Your task to perform on an android device: show emergency info Image 0: 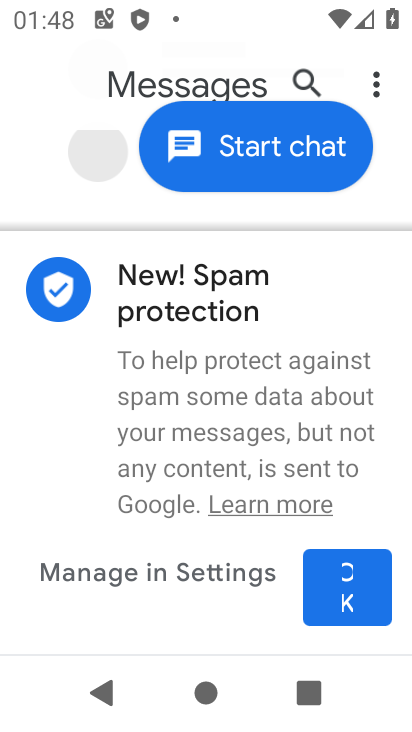
Step 0: press home button
Your task to perform on an android device: show emergency info Image 1: 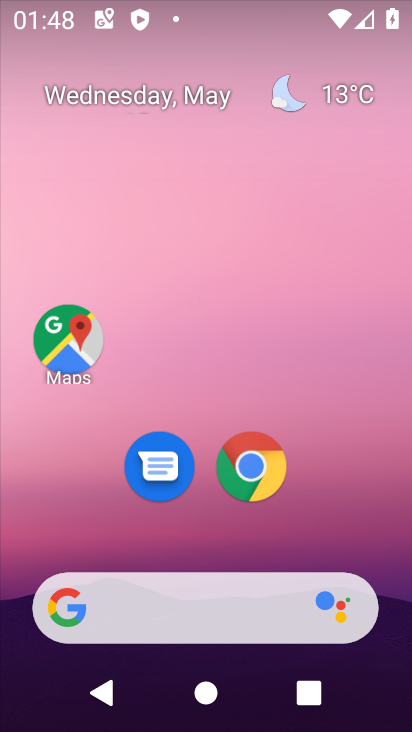
Step 1: drag from (338, 525) to (311, 100)
Your task to perform on an android device: show emergency info Image 2: 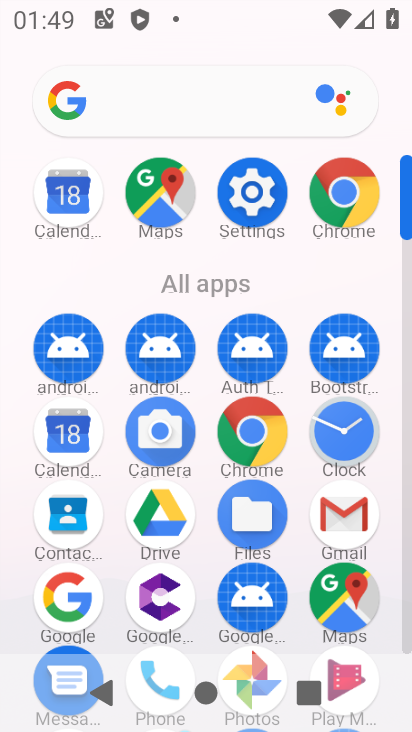
Step 2: click (258, 195)
Your task to perform on an android device: show emergency info Image 3: 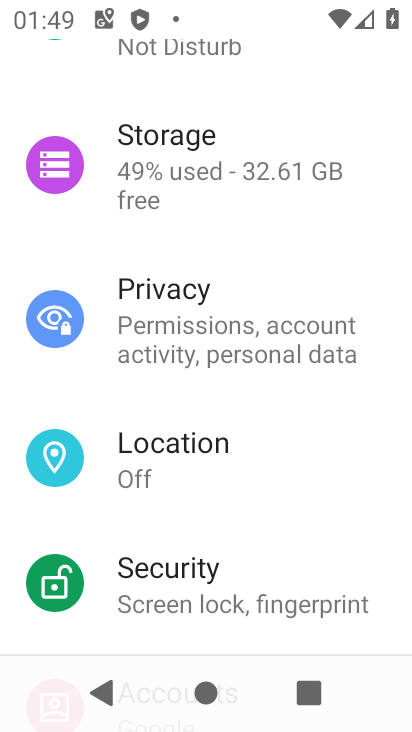
Step 3: drag from (207, 486) to (323, 13)
Your task to perform on an android device: show emergency info Image 4: 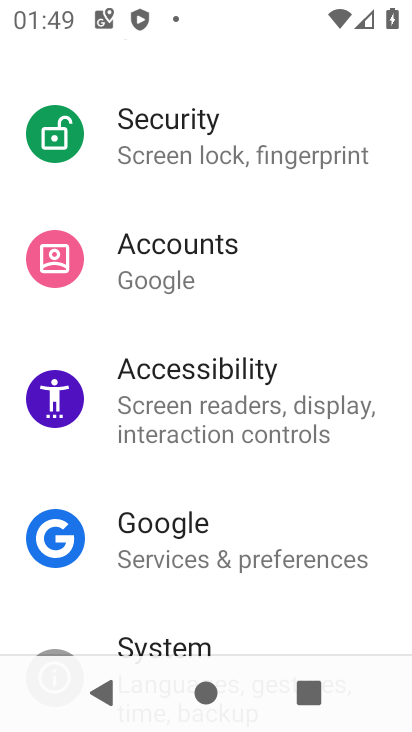
Step 4: drag from (264, 616) to (306, 79)
Your task to perform on an android device: show emergency info Image 5: 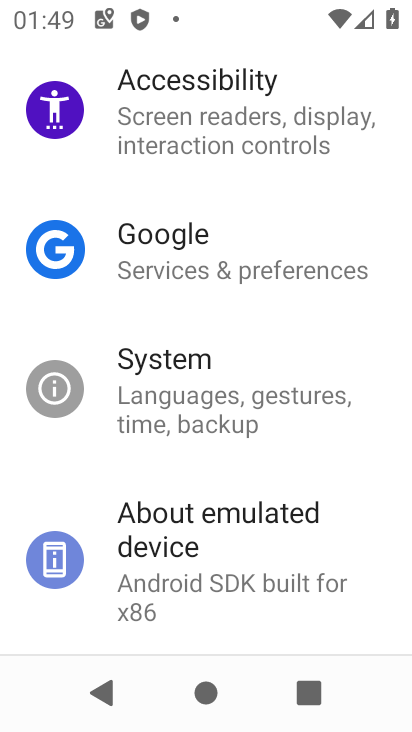
Step 5: click (251, 551)
Your task to perform on an android device: show emergency info Image 6: 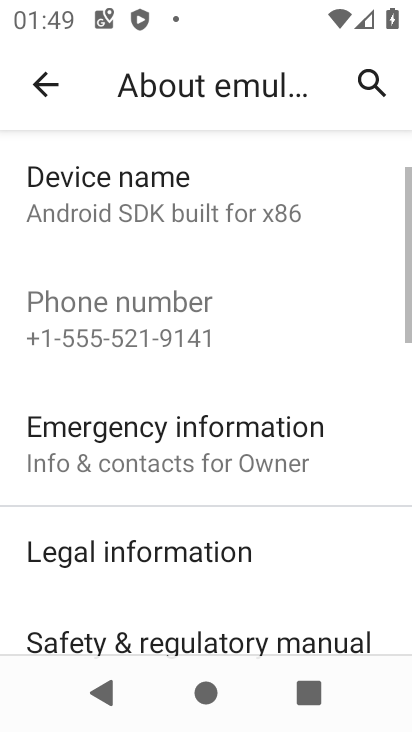
Step 6: drag from (251, 556) to (255, 457)
Your task to perform on an android device: show emergency info Image 7: 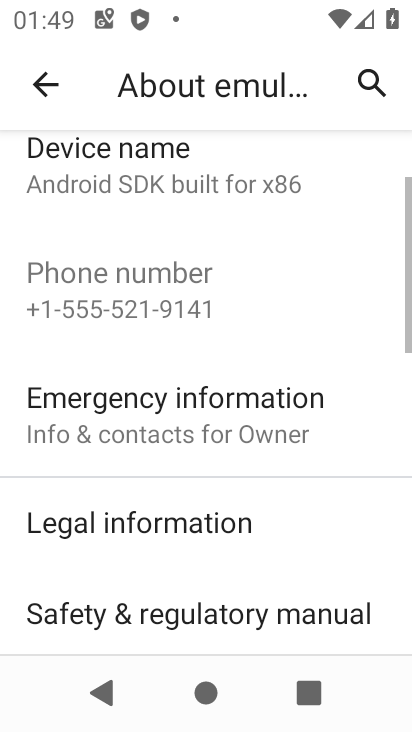
Step 7: click (248, 416)
Your task to perform on an android device: show emergency info Image 8: 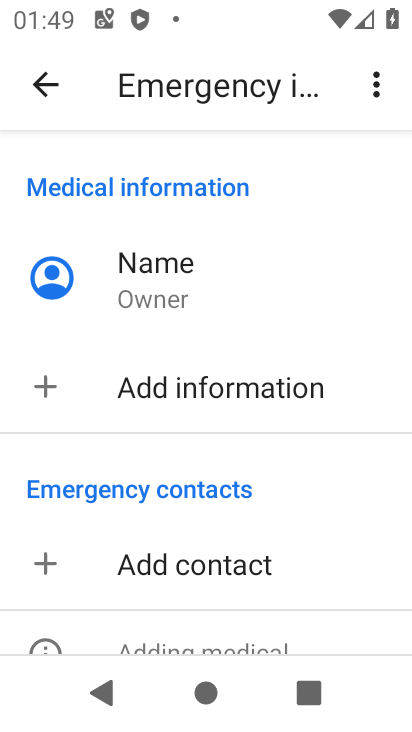
Step 8: task complete